Your task to perform on an android device: toggle notifications settings in the gmail app Image 0: 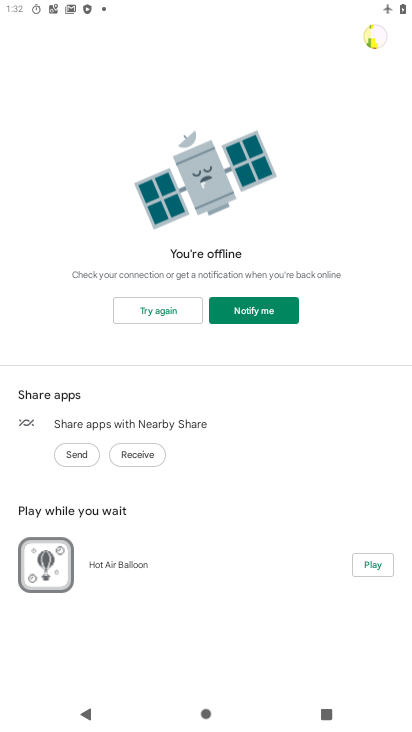
Step 0: press home button
Your task to perform on an android device: toggle notifications settings in the gmail app Image 1: 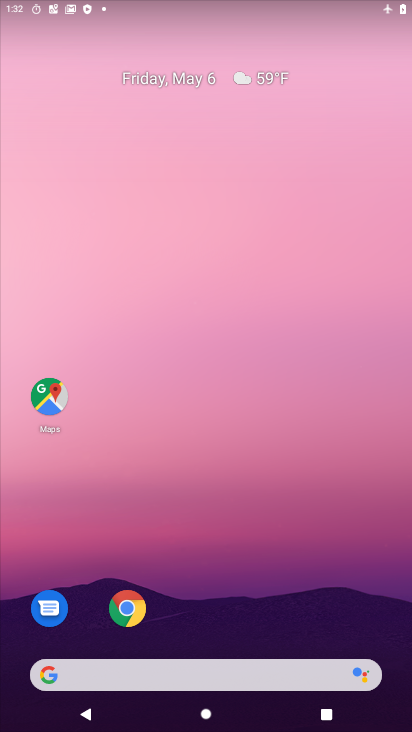
Step 1: drag from (163, 641) to (252, 196)
Your task to perform on an android device: toggle notifications settings in the gmail app Image 2: 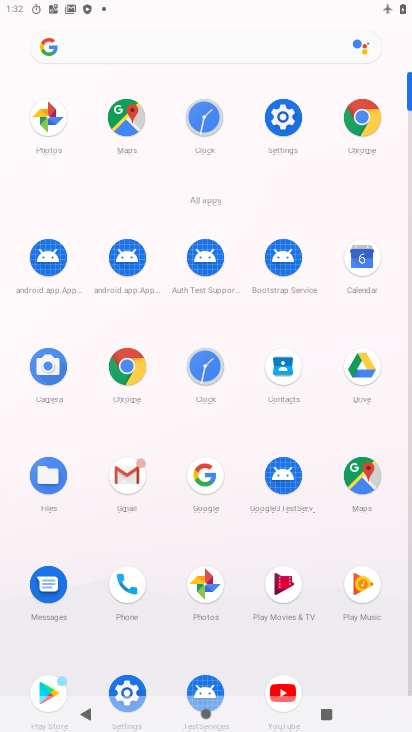
Step 2: drag from (157, 645) to (194, 331)
Your task to perform on an android device: toggle notifications settings in the gmail app Image 3: 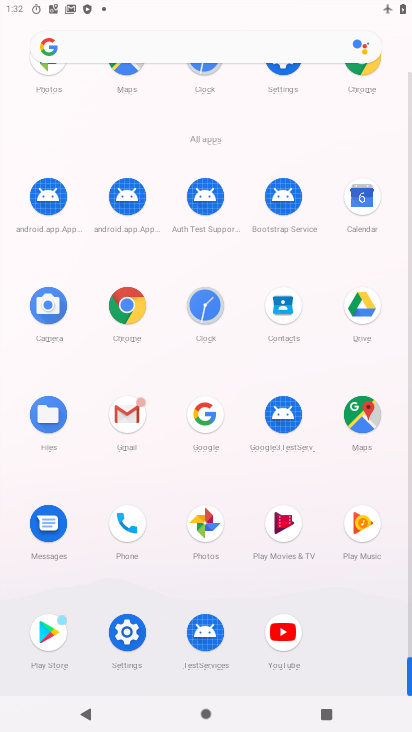
Step 3: click (135, 396)
Your task to perform on an android device: toggle notifications settings in the gmail app Image 4: 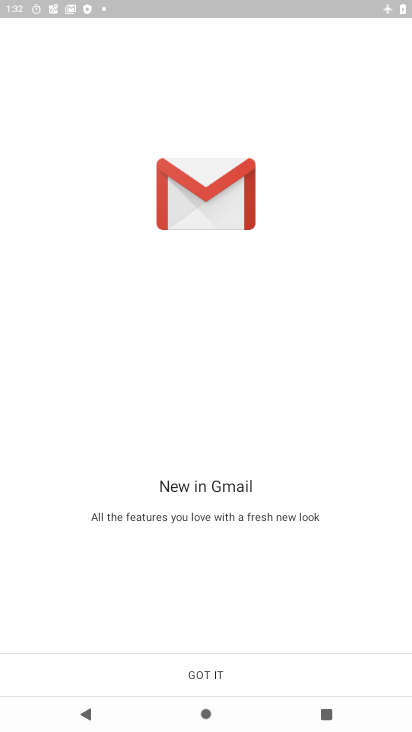
Step 4: click (206, 669)
Your task to perform on an android device: toggle notifications settings in the gmail app Image 5: 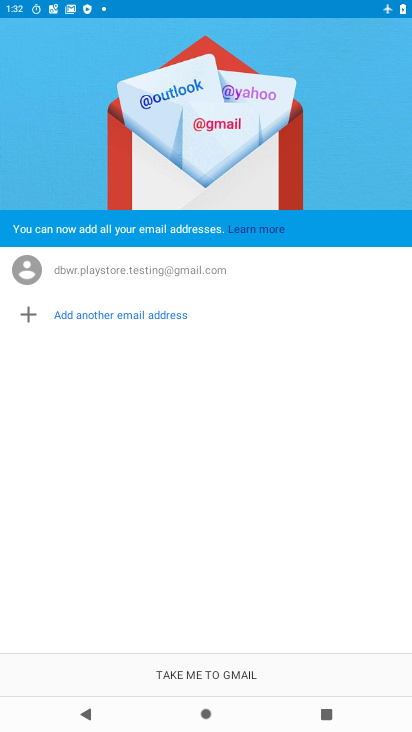
Step 5: click (193, 678)
Your task to perform on an android device: toggle notifications settings in the gmail app Image 6: 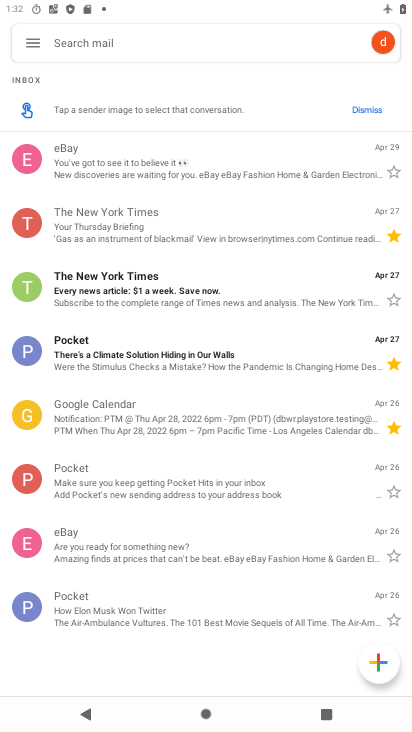
Step 6: click (35, 48)
Your task to perform on an android device: toggle notifications settings in the gmail app Image 7: 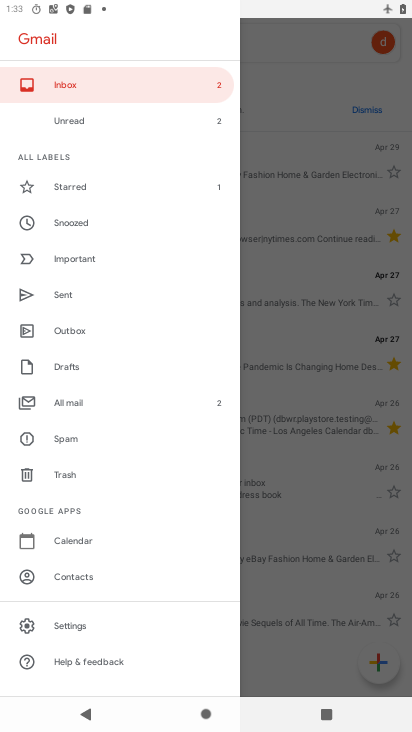
Step 7: click (75, 633)
Your task to perform on an android device: toggle notifications settings in the gmail app Image 8: 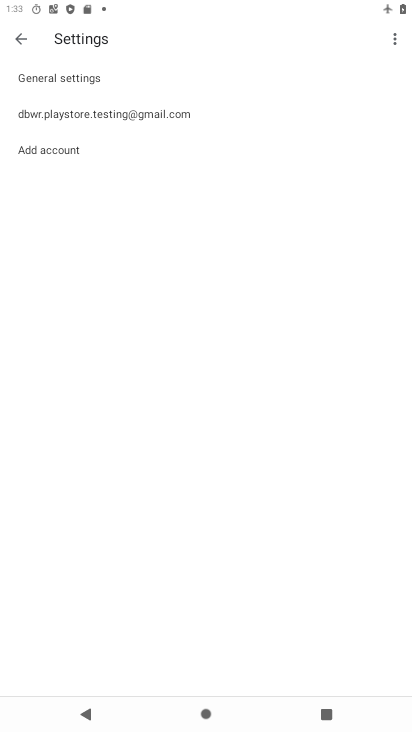
Step 8: click (131, 118)
Your task to perform on an android device: toggle notifications settings in the gmail app Image 9: 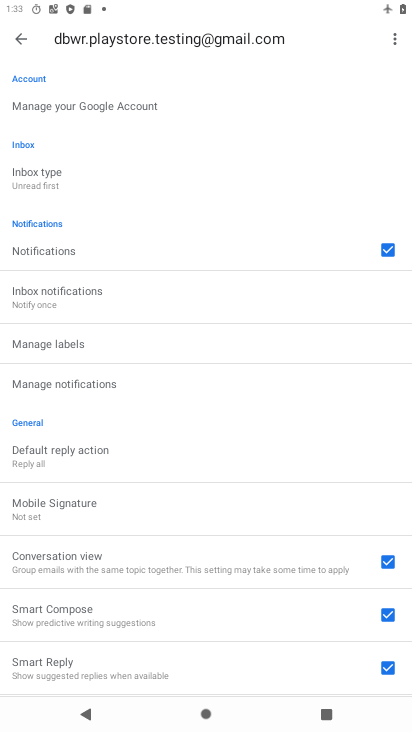
Step 9: click (122, 380)
Your task to perform on an android device: toggle notifications settings in the gmail app Image 10: 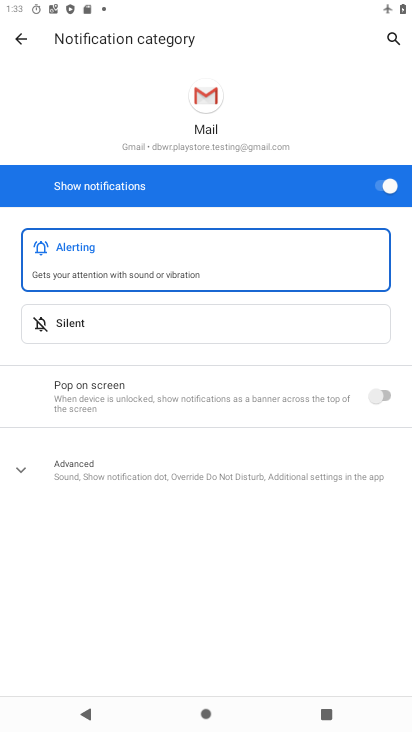
Step 10: click (379, 192)
Your task to perform on an android device: toggle notifications settings in the gmail app Image 11: 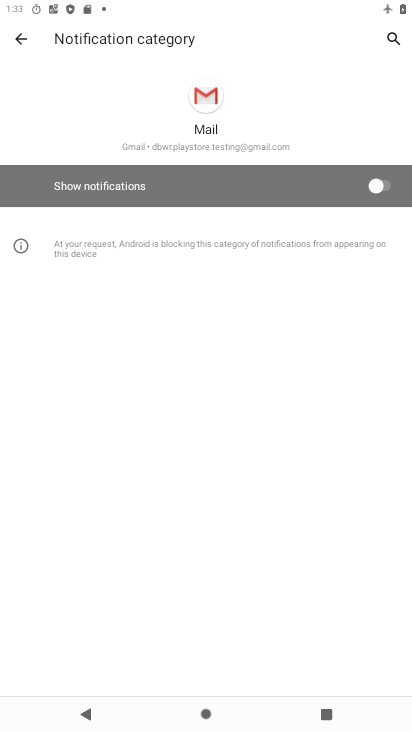
Step 11: task complete